Your task to perform on an android device: open the mobile data screen to see how much data has been used Image 0: 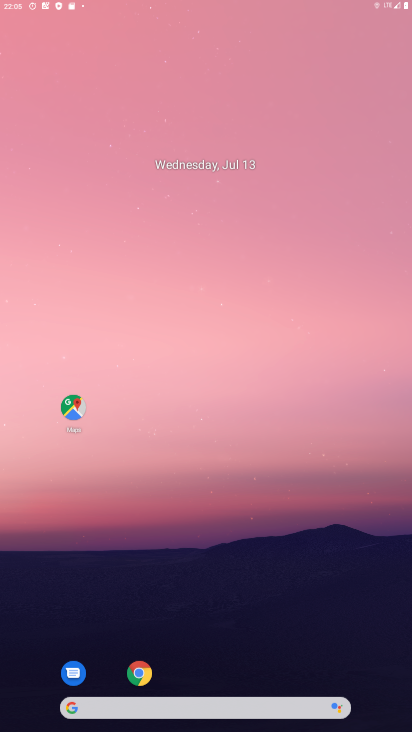
Step 0: click (264, 162)
Your task to perform on an android device: open the mobile data screen to see how much data has been used Image 1: 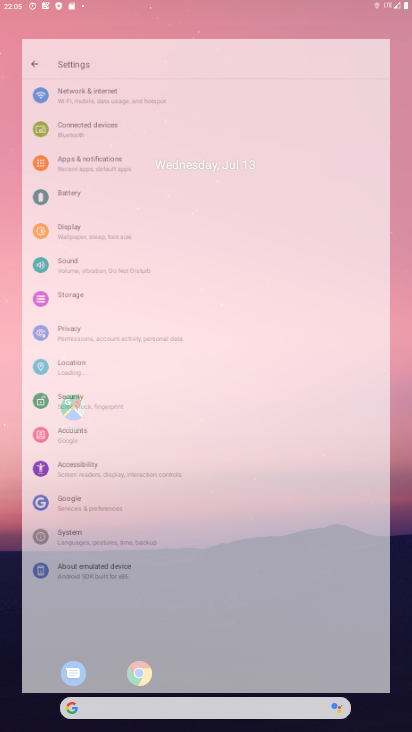
Step 1: drag from (148, 156) to (314, 584)
Your task to perform on an android device: open the mobile data screen to see how much data has been used Image 2: 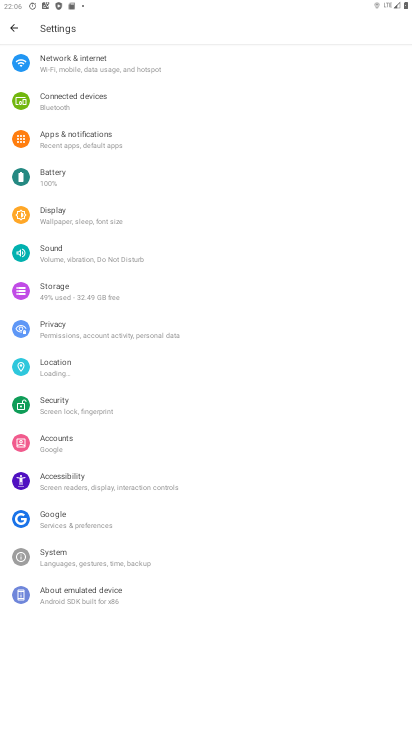
Step 2: press home button
Your task to perform on an android device: open the mobile data screen to see how much data has been used Image 3: 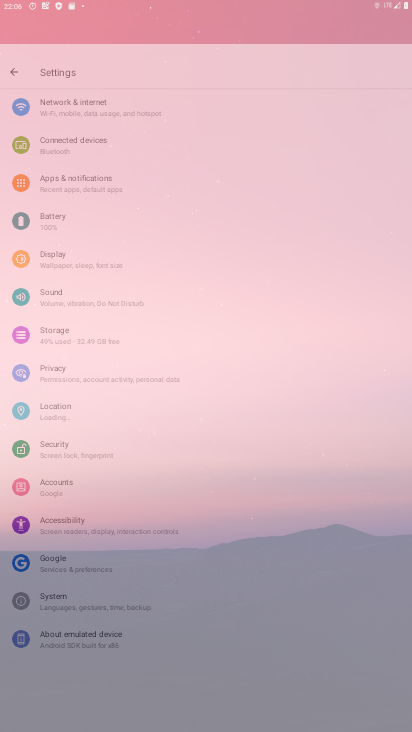
Step 3: press home button
Your task to perform on an android device: open the mobile data screen to see how much data has been used Image 4: 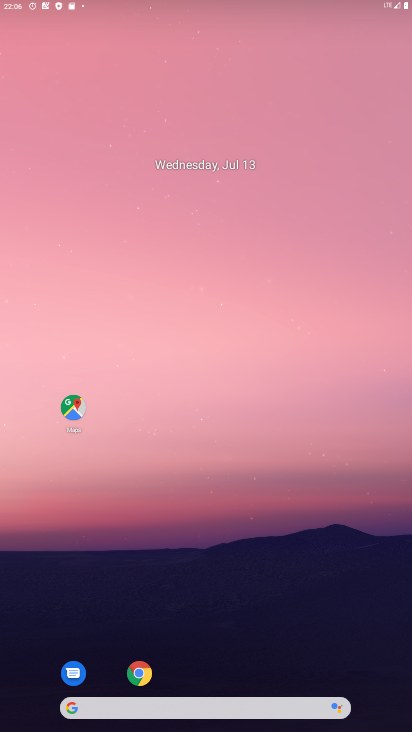
Step 4: drag from (203, 641) to (220, 19)
Your task to perform on an android device: open the mobile data screen to see how much data has been used Image 5: 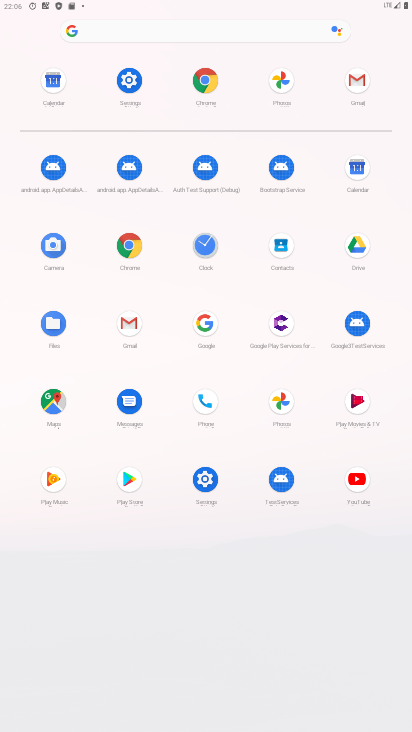
Step 5: click (202, 481)
Your task to perform on an android device: open the mobile data screen to see how much data has been used Image 6: 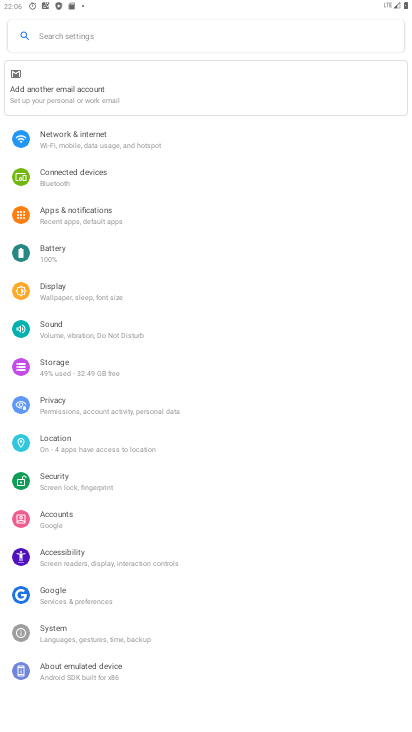
Step 6: click (119, 139)
Your task to perform on an android device: open the mobile data screen to see how much data has been used Image 7: 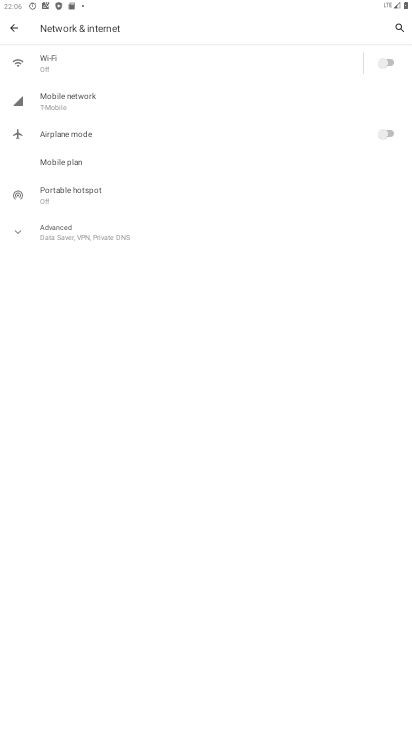
Step 7: click (169, 94)
Your task to perform on an android device: open the mobile data screen to see how much data has been used Image 8: 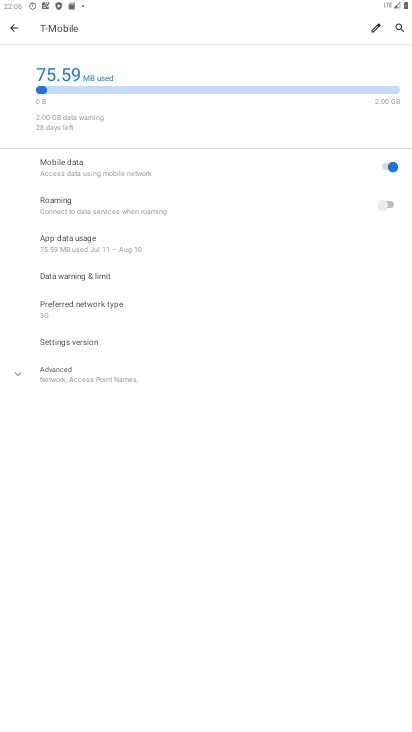
Step 8: task complete